Your task to perform on an android device: Go to Reddit.com Image 0: 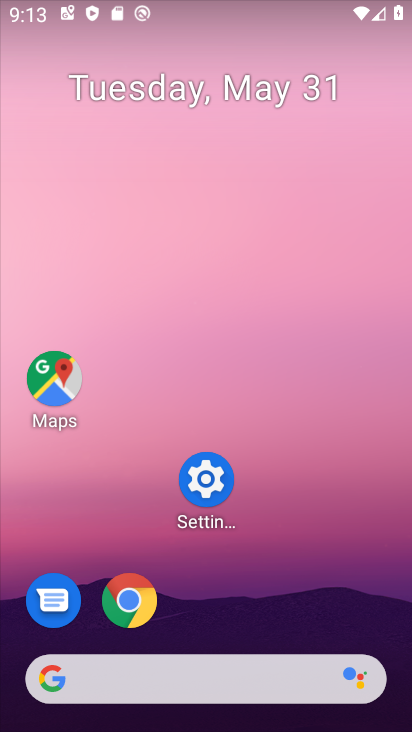
Step 0: press home button
Your task to perform on an android device: Go to Reddit.com Image 1: 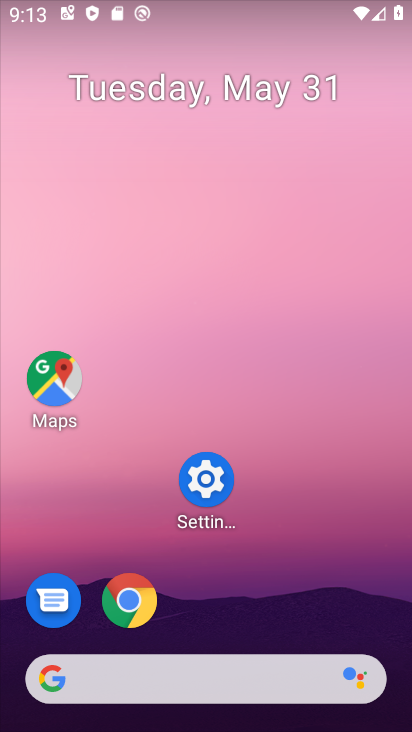
Step 1: click (127, 601)
Your task to perform on an android device: Go to Reddit.com Image 2: 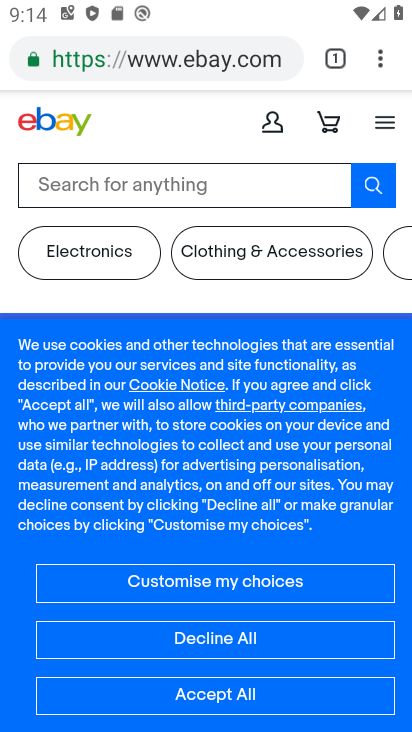
Step 2: click (335, 55)
Your task to perform on an android device: Go to Reddit.com Image 3: 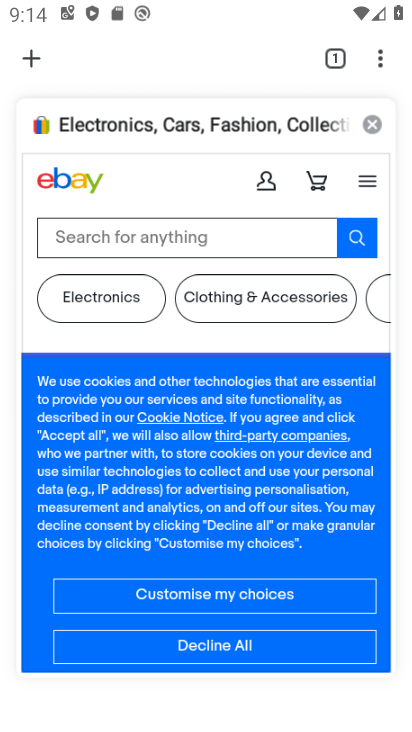
Step 3: click (36, 48)
Your task to perform on an android device: Go to Reddit.com Image 4: 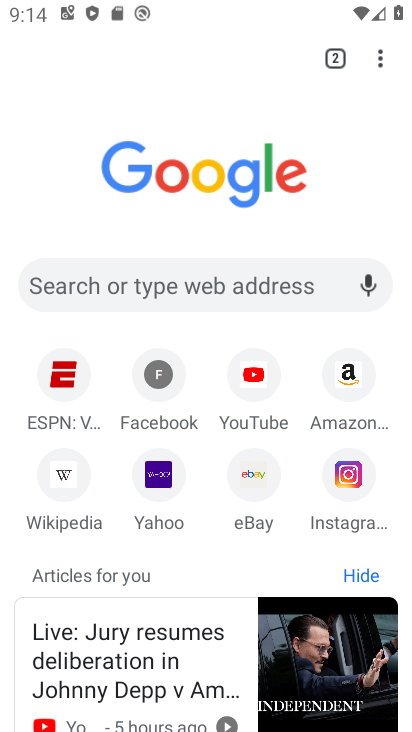
Step 4: click (134, 286)
Your task to perform on an android device: Go to Reddit.com Image 5: 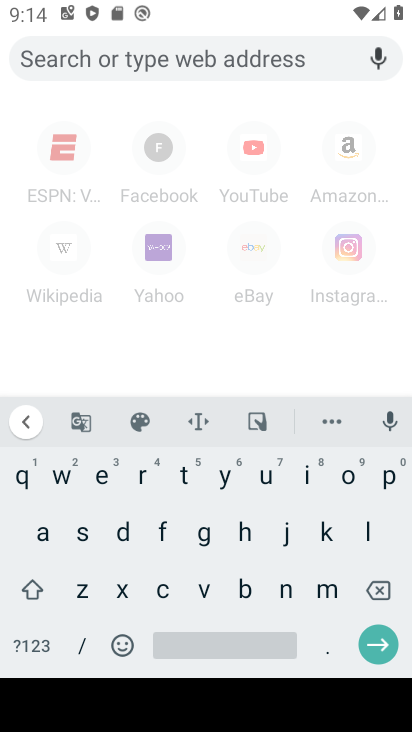
Step 5: click (141, 468)
Your task to perform on an android device: Go to Reddit.com Image 6: 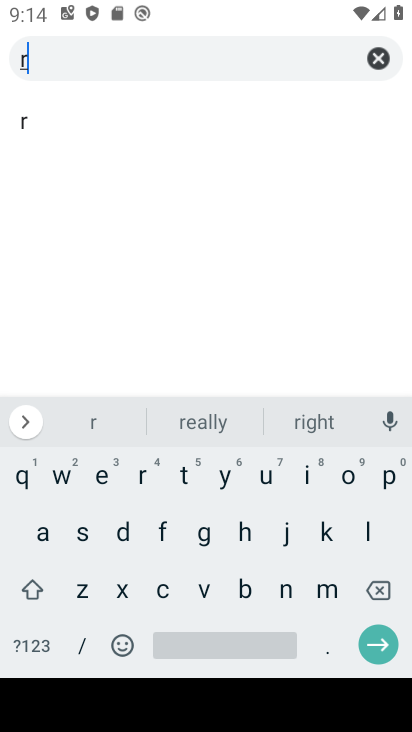
Step 6: click (99, 475)
Your task to perform on an android device: Go to Reddit.com Image 7: 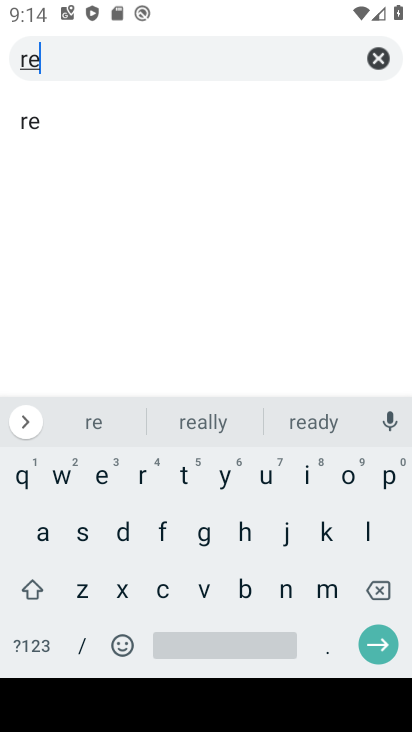
Step 7: click (126, 528)
Your task to perform on an android device: Go to Reddit.com Image 8: 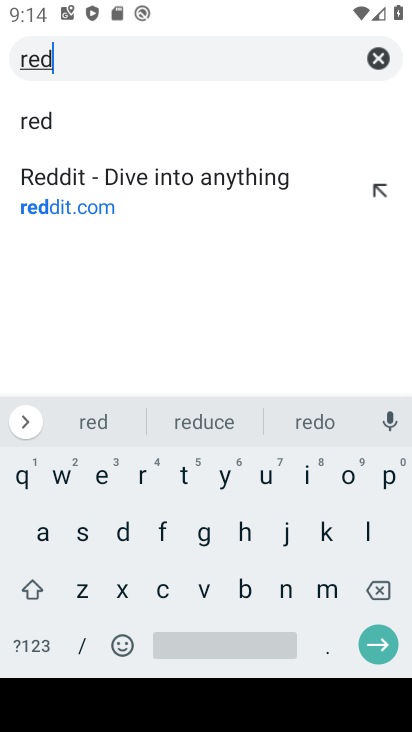
Step 8: click (72, 176)
Your task to perform on an android device: Go to Reddit.com Image 9: 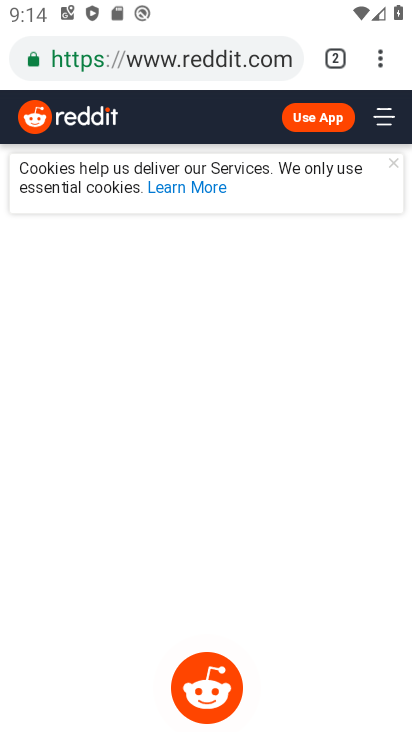
Step 9: task complete